Your task to perform on an android device: turn on data saver in the chrome app Image 0: 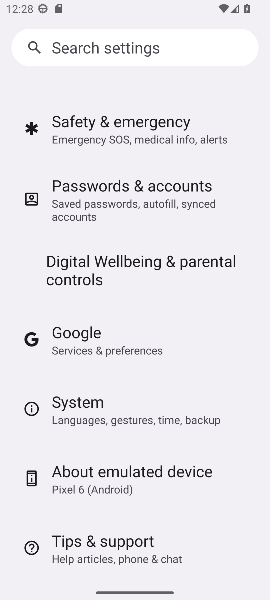
Step 0: press home button
Your task to perform on an android device: turn on data saver in the chrome app Image 1: 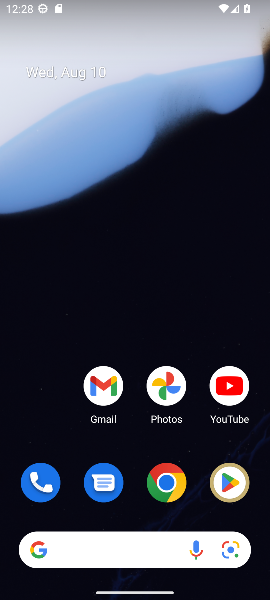
Step 1: drag from (49, 401) to (67, 164)
Your task to perform on an android device: turn on data saver in the chrome app Image 2: 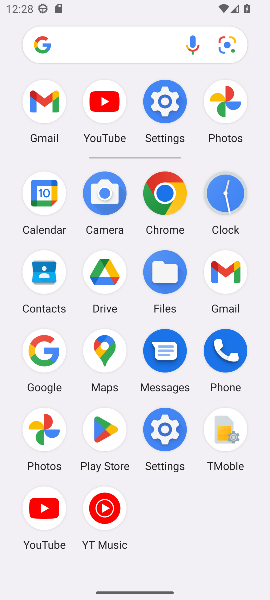
Step 2: click (172, 432)
Your task to perform on an android device: turn on data saver in the chrome app Image 3: 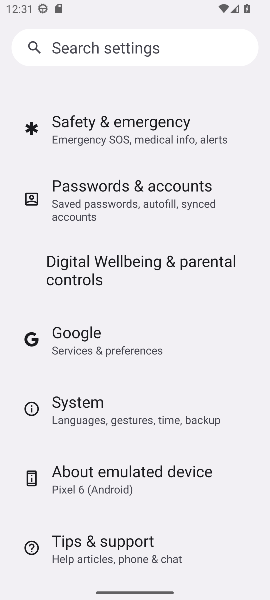
Step 3: task complete